Your task to perform on an android device: Go to Google maps Image 0: 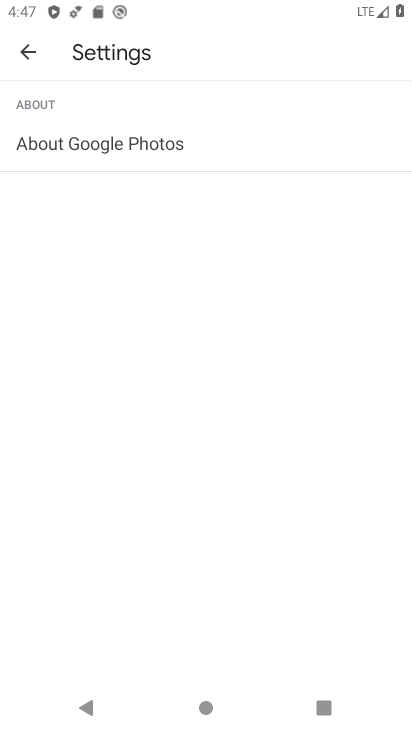
Step 0: press back button
Your task to perform on an android device: Go to Google maps Image 1: 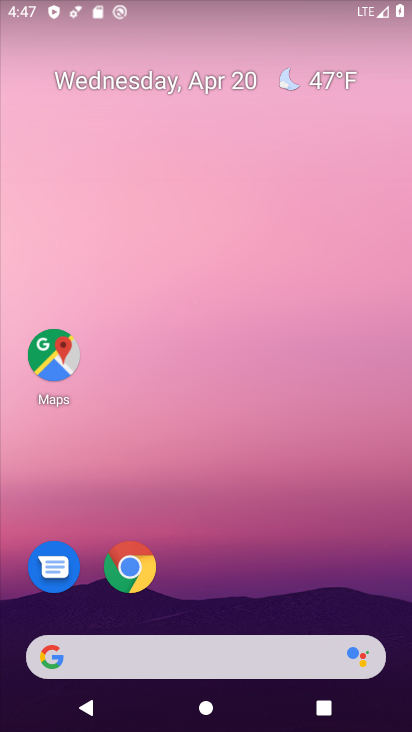
Step 1: drag from (343, 570) to (326, 53)
Your task to perform on an android device: Go to Google maps Image 2: 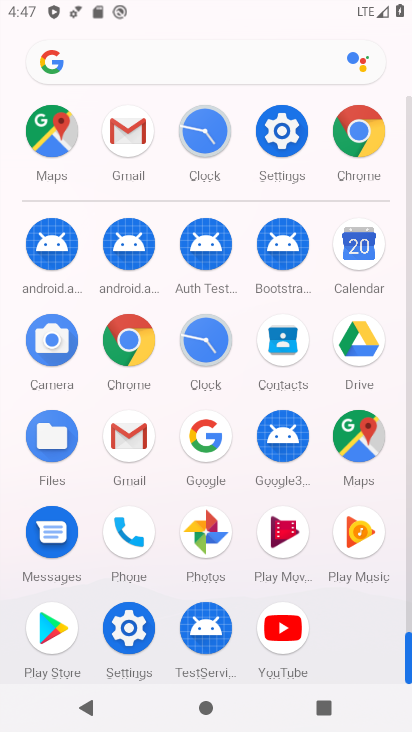
Step 2: click (44, 132)
Your task to perform on an android device: Go to Google maps Image 3: 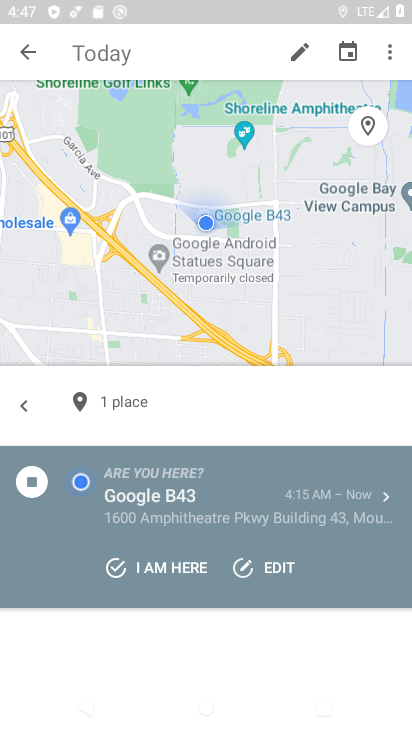
Step 3: click (27, 49)
Your task to perform on an android device: Go to Google maps Image 4: 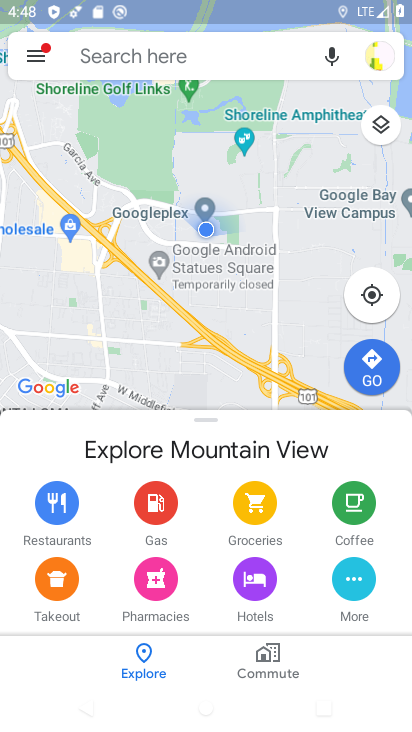
Step 4: task complete